Your task to perform on an android device: What's the weather today? Image 0: 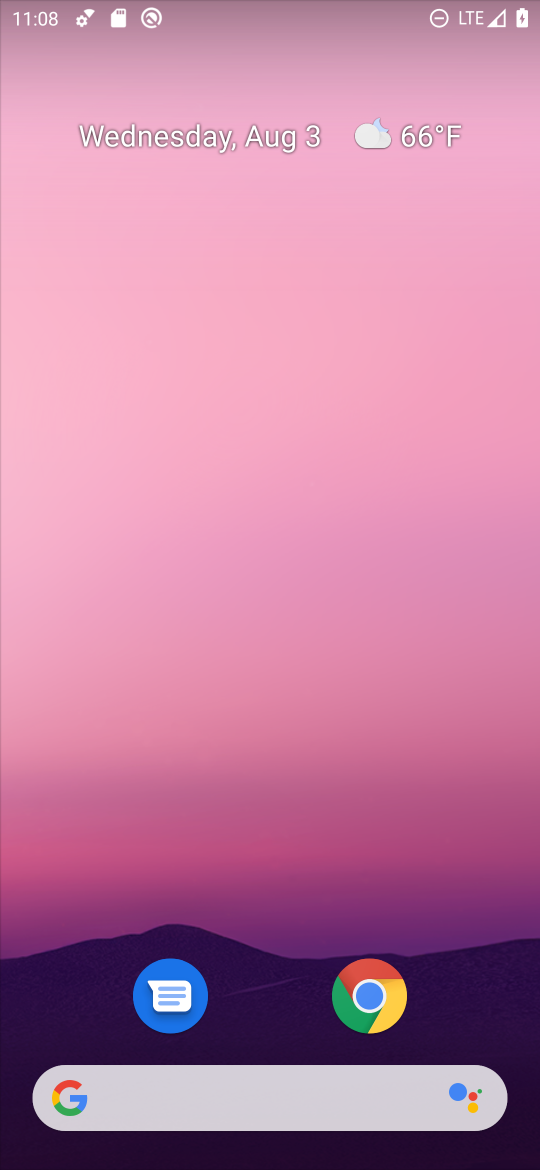
Step 0: click (398, 126)
Your task to perform on an android device: What's the weather today? Image 1: 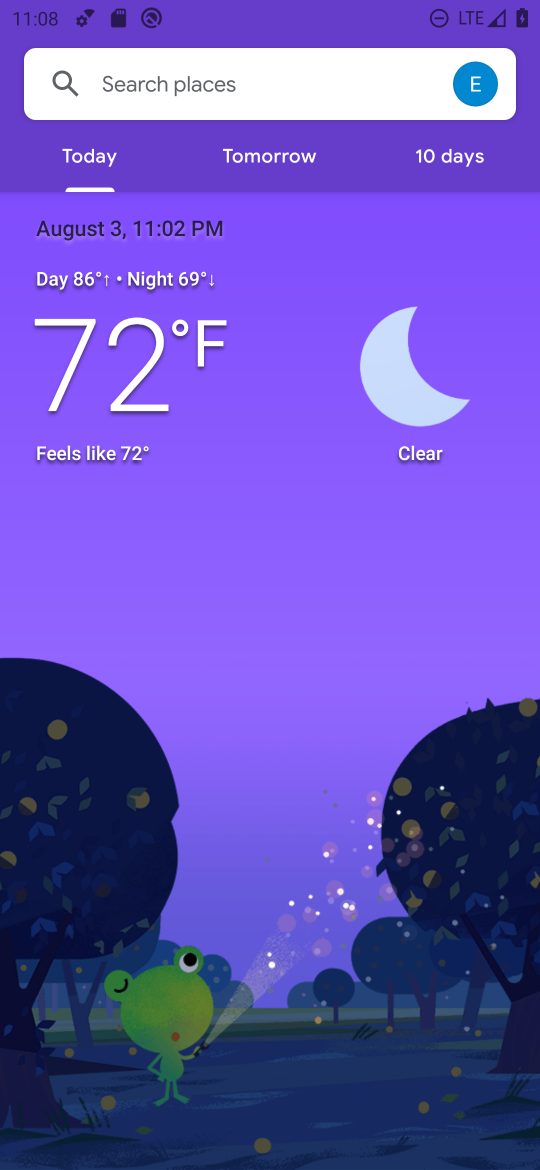
Step 1: task complete